Your task to perform on an android device: turn on notifications settings in the gmail app Image 0: 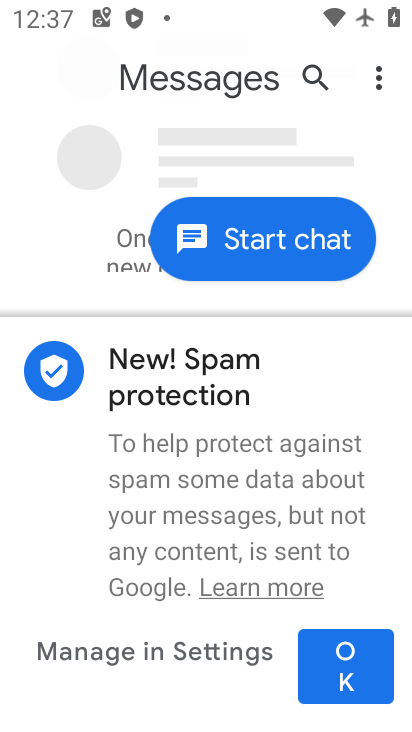
Step 0: press back button
Your task to perform on an android device: turn on notifications settings in the gmail app Image 1: 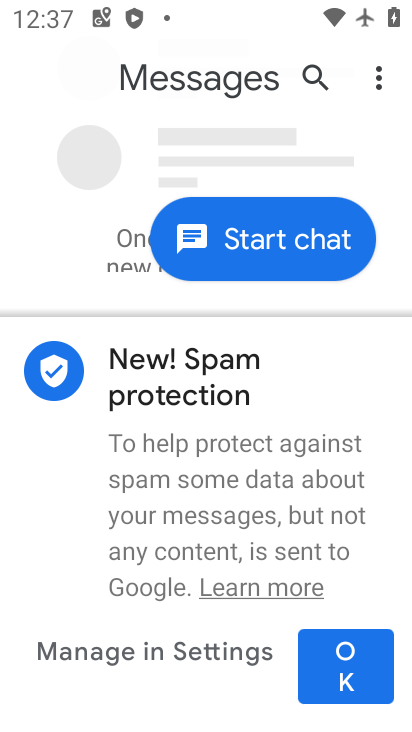
Step 1: press back button
Your task to perform on an android device: turn on notifications settings in the gmail app Image 2: 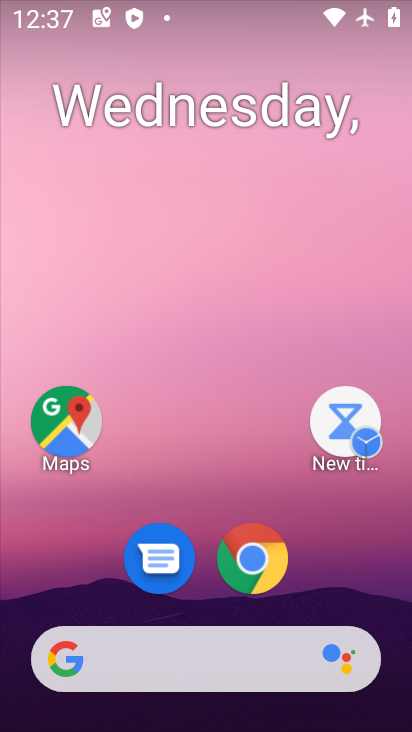
Step 2: press home button
Your task to perform on an android device: turn on notifications settings in the gmail app Image 3: 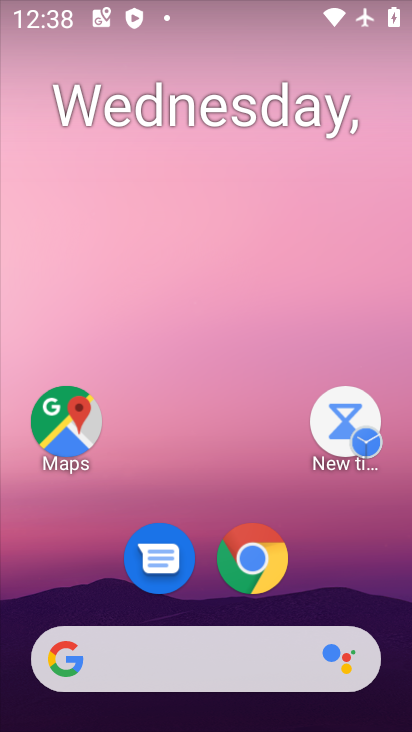
Step 3: drag from (269, 620) to (108, 98)
Your task to perform on an android device: turn on notifications settings in the gmail app Image 4: 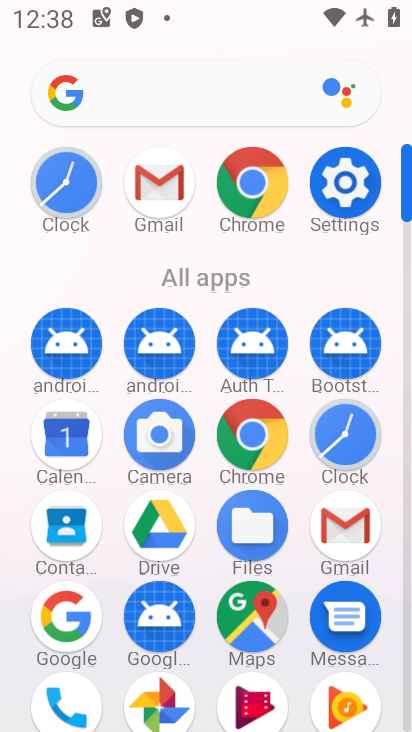
Step 4: press back button
Your task to perform on an android device: turn on notifications settings in the gmail app Image 5: 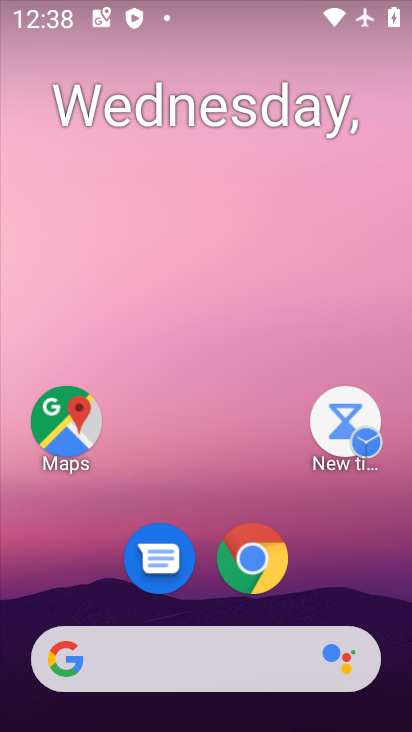
Step 5: drag from (288, 554) to (230, 157)
Your task to perform on an android device: turn on notifications settings in the gmail app Image 6: 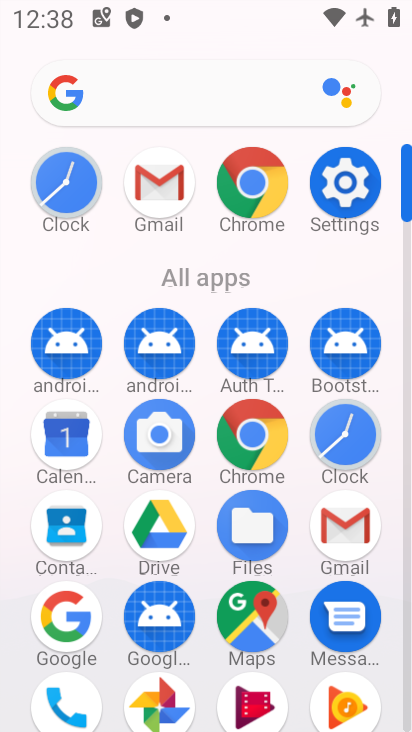
Step 6: drag from (312, 436) to (326, 468)
Your task to perform on an android device: turn on notifications settings in the gmail app Image 7: 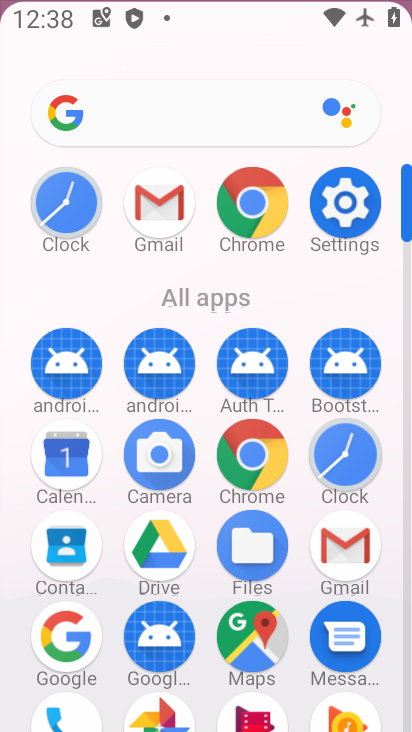
Step 7: click (357, 530)
Your task to perform on an android device: turn on notifications settings in the gmail app Image 8: 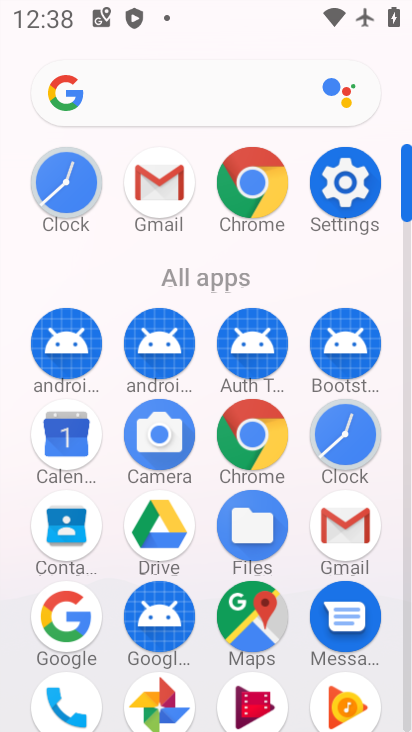
Step 8: click (362, 565)
Your task to perform on an android device: turn on notifications settings in the gmail app Image 9: 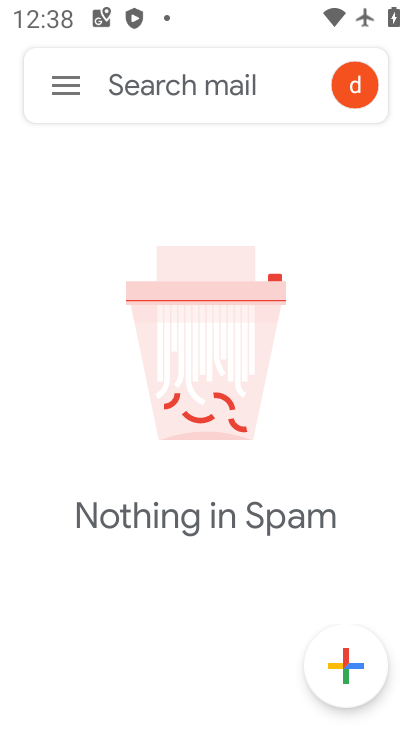
Step 9: press back button
Your task to perform on an android device: turn on notifications settings in the gmail app Image 10: 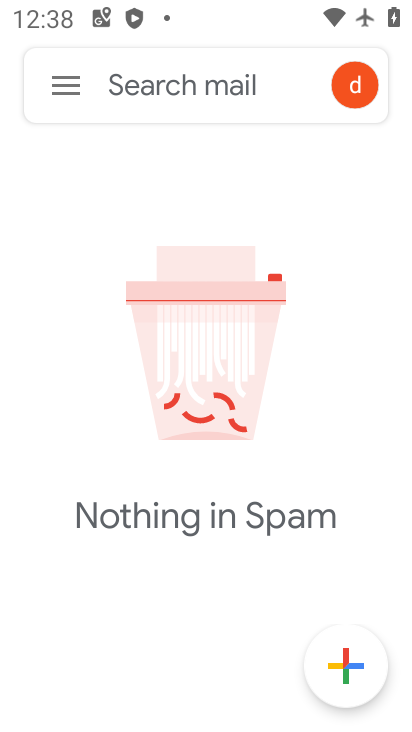
Step 10: press back button
Your task to perform on an android device: turn on notifications settings in the gmail app Image 11: 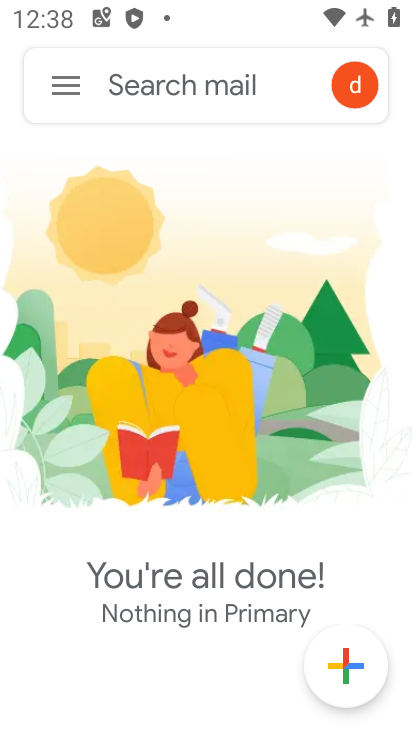
Step 11: press back button
Your task to perform on an android device: turn on notifications settings in the gmail app Image 12: 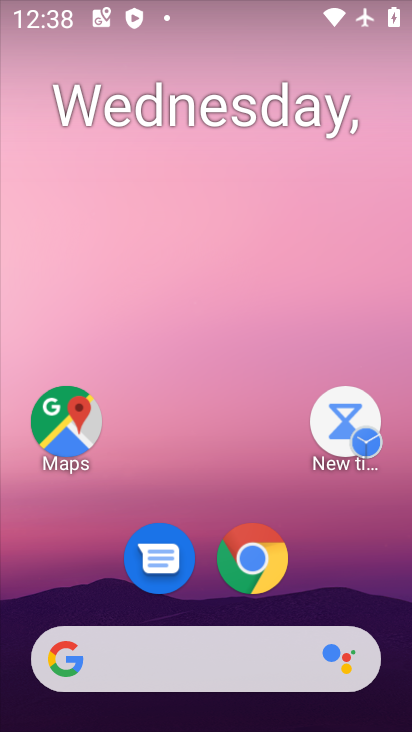
Step 12: drag from (243, 612) to (121, 107)
Your task to perform on an android device: turn on notifications settings in the gmail app Image 13: 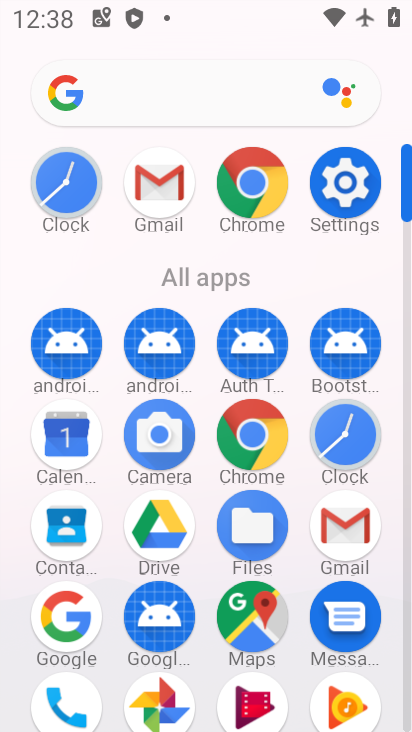
Step 13: click (152, 195)
Your task to perform on an android device: turn on notifications settings in the gmail app Image 14: 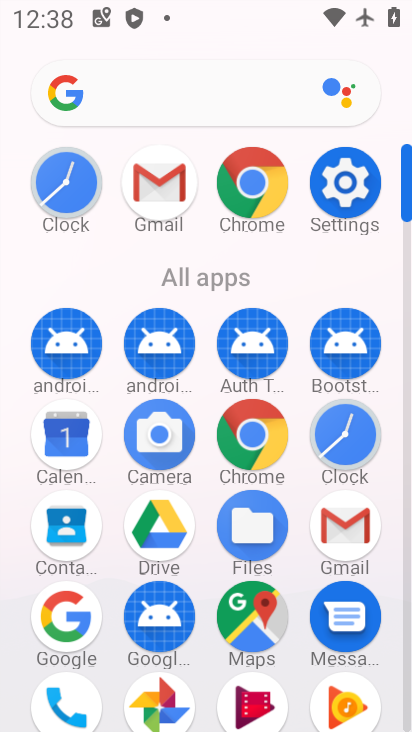
Step 14: click (152, 195)
Your task to perform on an android device: turn on notifications settings in the gmail app Image 15: 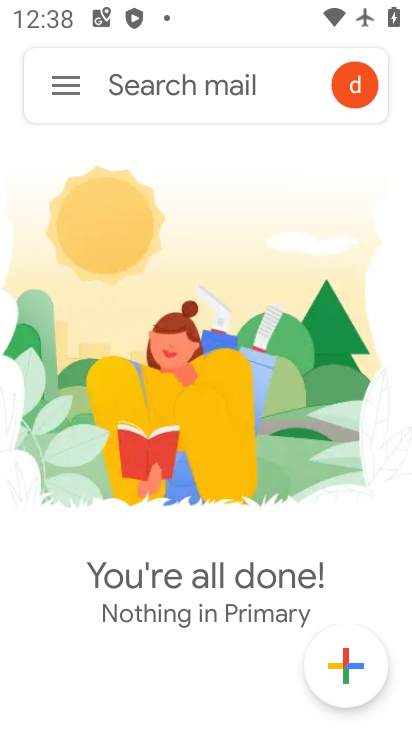
Step 15: click (56, 89)
Your task to perform on an android device: turn on notifications settings in the gmail app Image 16: 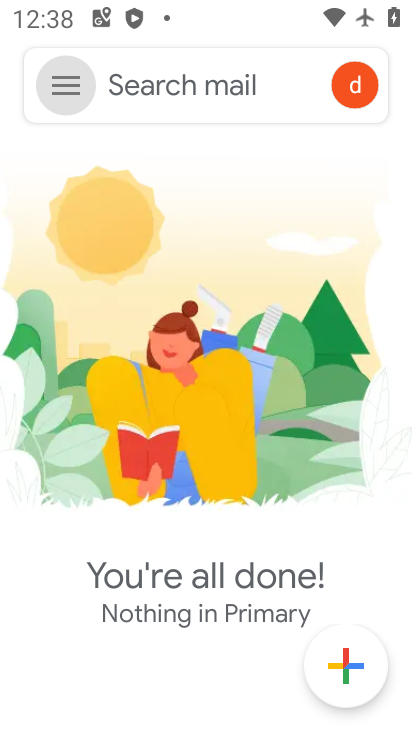
Step 16: click (64, 77)
Your task to perform on an android device: turn on notifications settings in the gmail app Image 17: 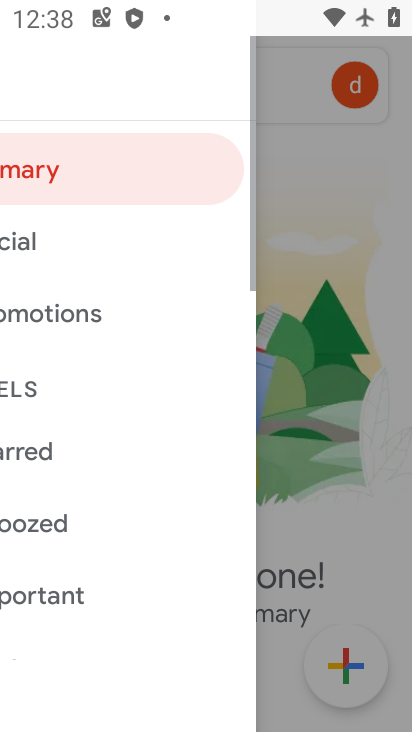
Step 17: click (48, 97)
Your task to perform on an android device: turn on notifications settings in the gmail app Image 18: 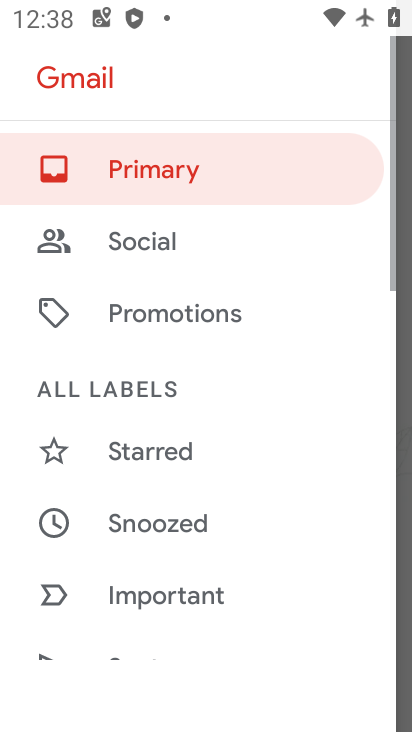
Step 18: click (158, 161)
Your task to perform on an android device: turn on notifications settings in the gmail app Image 19: 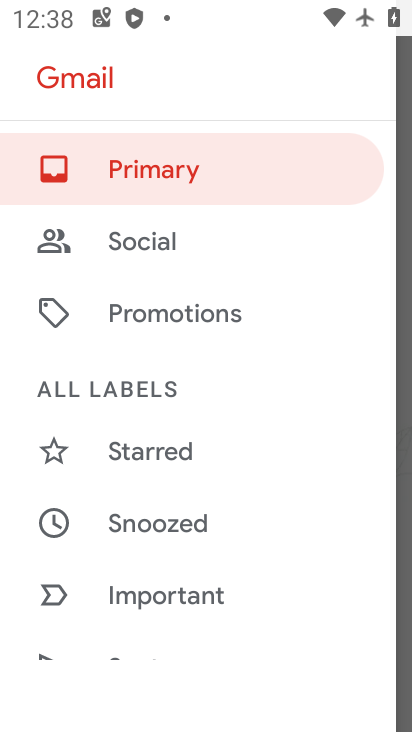
Step 19: drag from (164, 452) to (152, 123)
Your task to perform on an android device: turn on notifications settings in the gmail app Image 20: 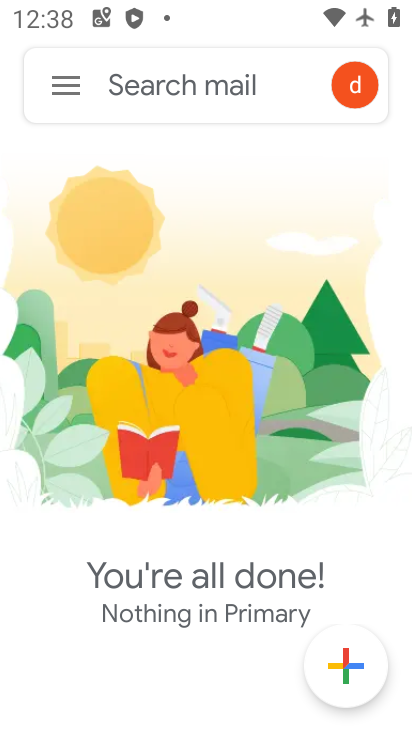
Step 20: drag from (229, 487) to (165, 77)
Your task to perform on an android device: turn on notifications settings in the gmail app Image 21: 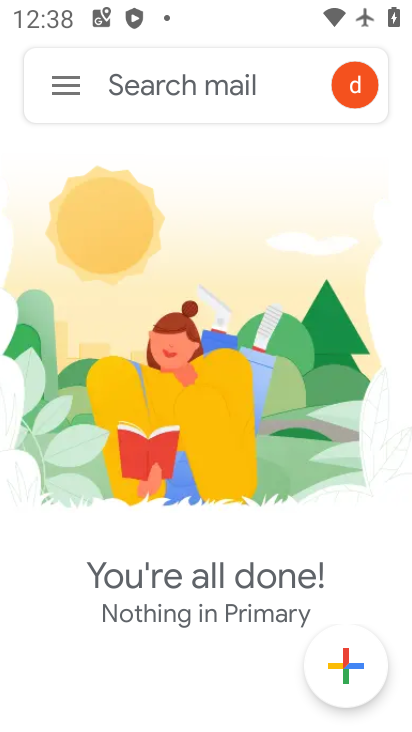
Step 21: drag from (123, 498) to (57, 82)
Your task to perform on an android device: turn on notifications settings in the gmail app Image 22: 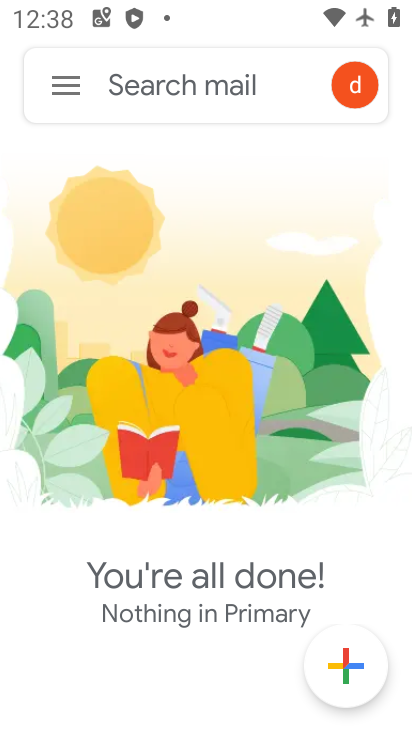
Step 22: click (56, 86)
Your task to perform on an android device: turn on notifications settings in the gmail app Image 23: 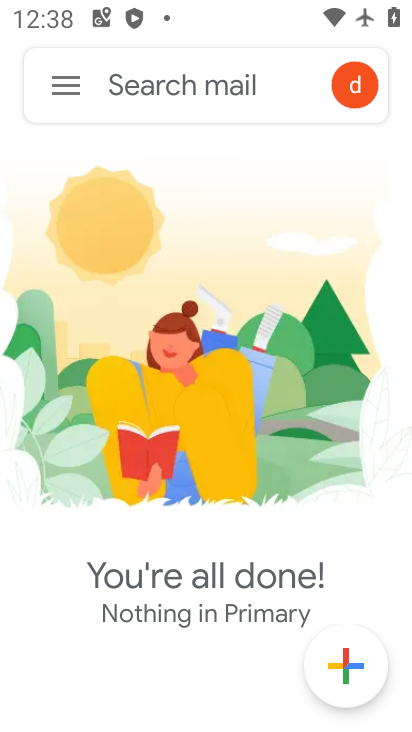
Step 23: click (61, 93)
Your task to perform on an android device: turn on notifications settings in the gmail app Image 24: 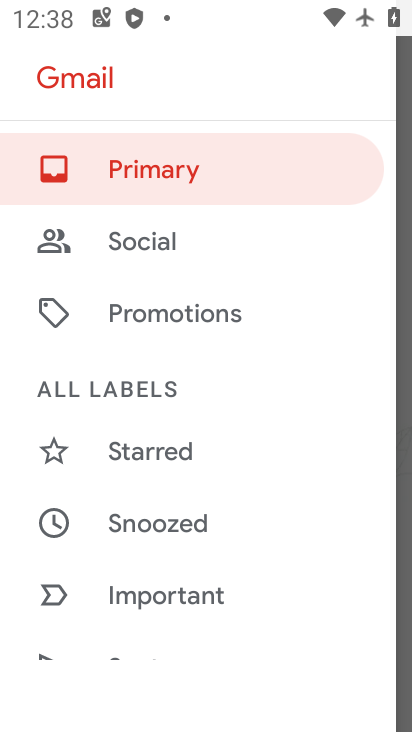
Step 24: drag from (177, 589) to (171, 160)
Your task to perform on an android device: turn on notifications settings in the gmail app Image 25: 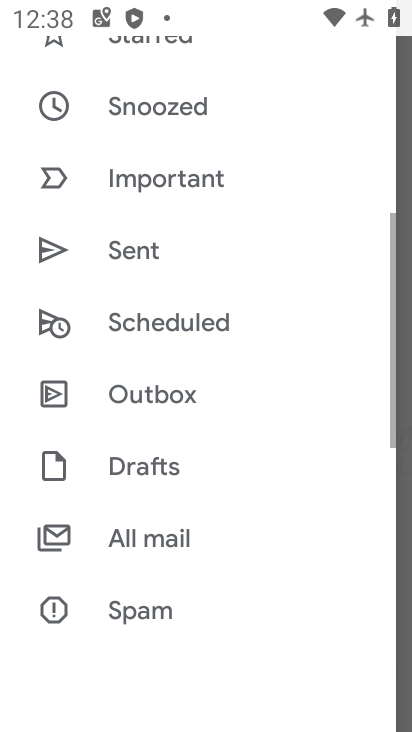
Step 25: drag from (245, 517) to (212, 69)
Your task to perform on an android device: turn on notifications settings in the gmail app Image 26: 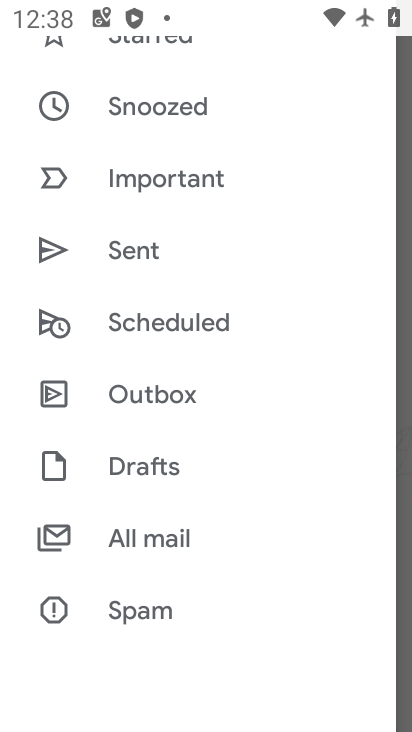
Step 26: drag from (211, 560) to (180, 180)
Your task to perform on an android device: turn on notifications settings in the gmail app Image 27: 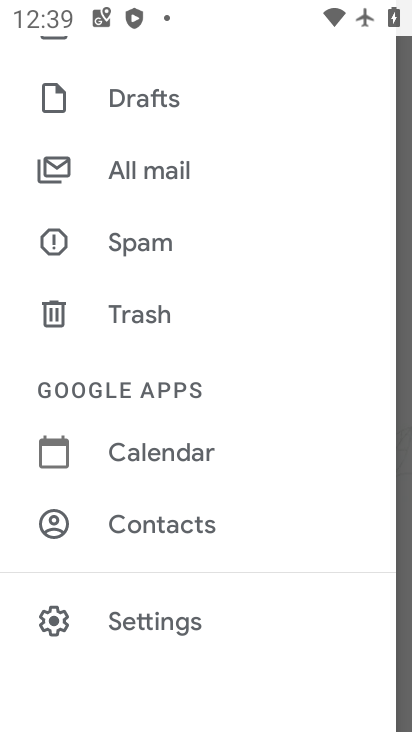
Step 27: click (142, 630)
Your task to perform on an android device: turn on notifications settings in the gmail app Image 28: 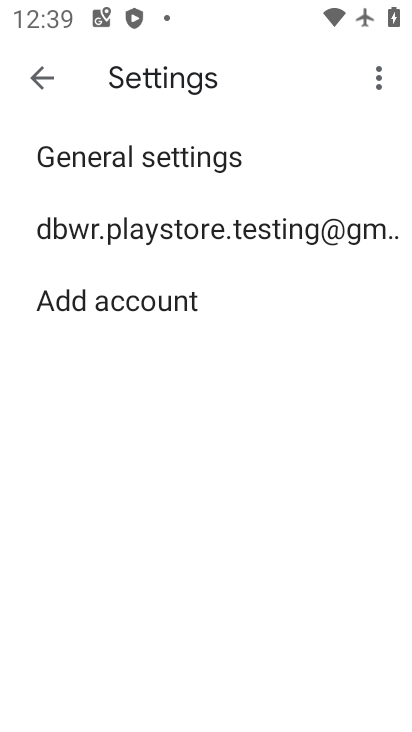
Step 28: click (86, 224)
Your task to perform on an android device: turn on notifications settings in the gmail app Image 29: 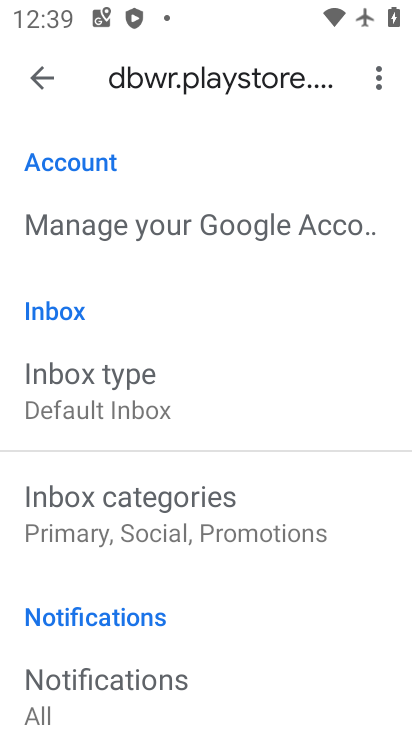
Step 29: task complete